Your task to perform on an android device: Open settings on Google Maps Image 0: 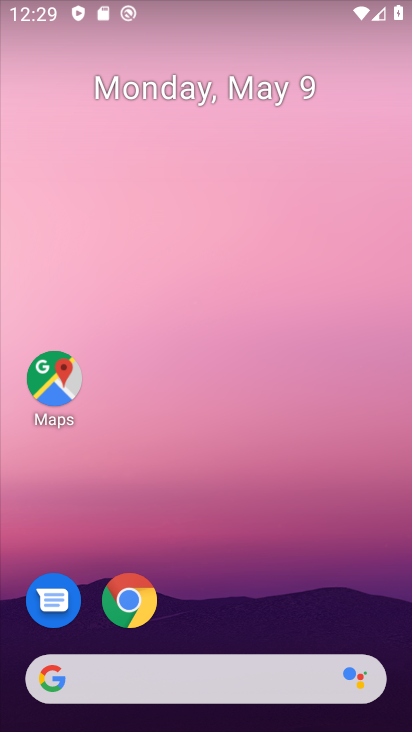
Step 0: click (59, 397)
Your task to perform on an android device: Open settings on Google Maps Image 1: 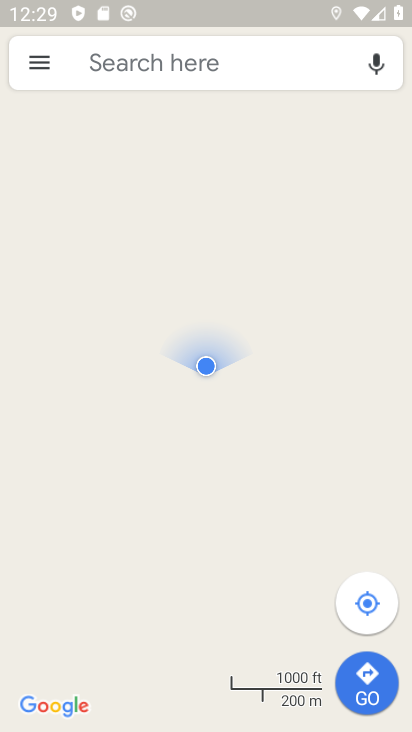
Step 1: click (36, 64)
Your task to perform on an android device: Open settings on Google Maps Image 2: 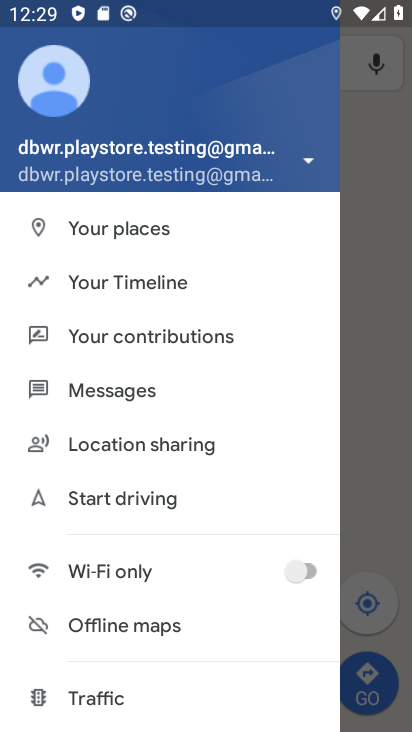
Step 2: drag from (135, 687) to (145, 373)
Your task to perform on an android device: Open settings on Google Maps Image 3: 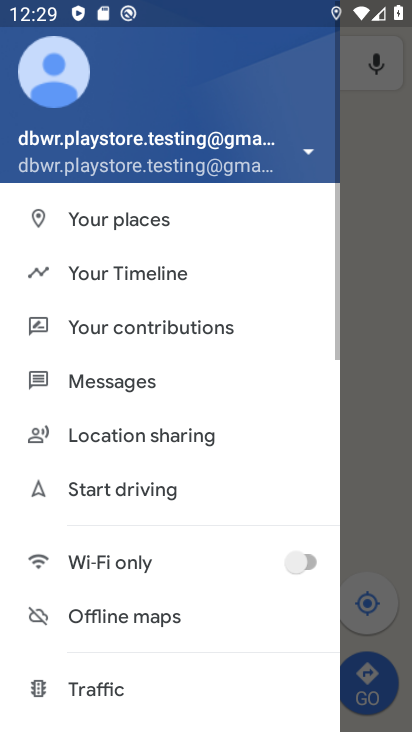
Step 3: drag from (165, 673) to (198, 254)
Your task to perform on an android device: Open settings on Google Maps Image 4: 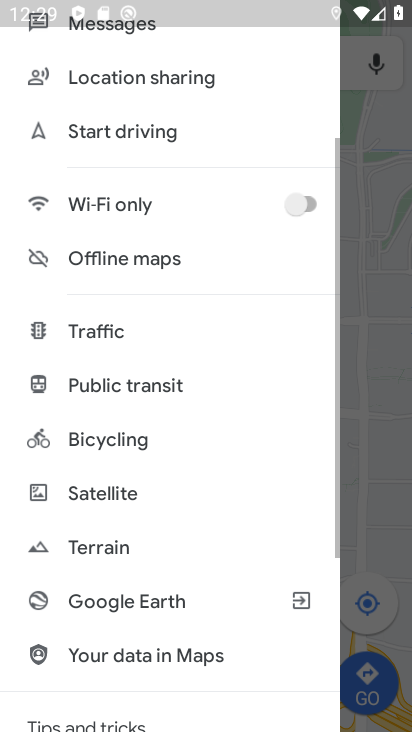
Step 4: drag from (199, 649) to (225, 81)
Your task to perform on an android device: Open settings on Google Maps Image 5: 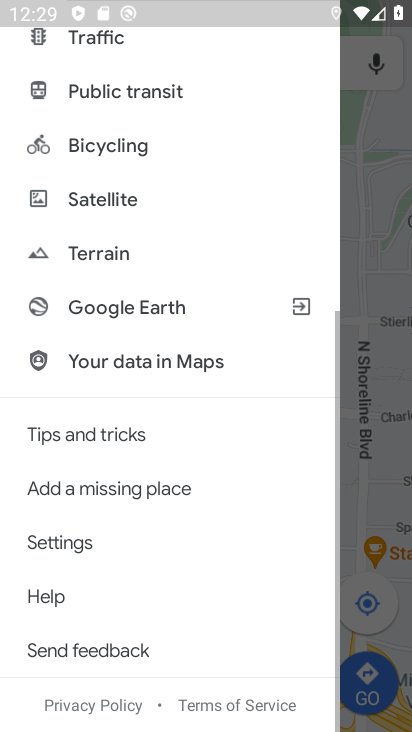
Step 5: drag from (111, 638) to (143, 435)
Your task to perform on an android device: Open settings on Google Maps Image 6: 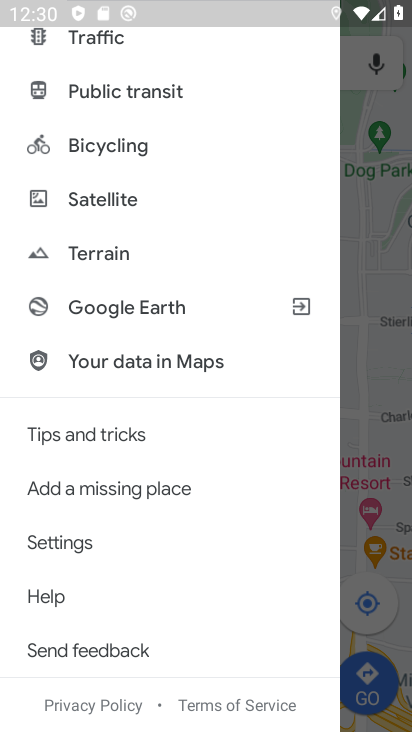
Step 6: click (143, 531)
Your task to perform on an android device: Open settings on Google Maps Image 7: 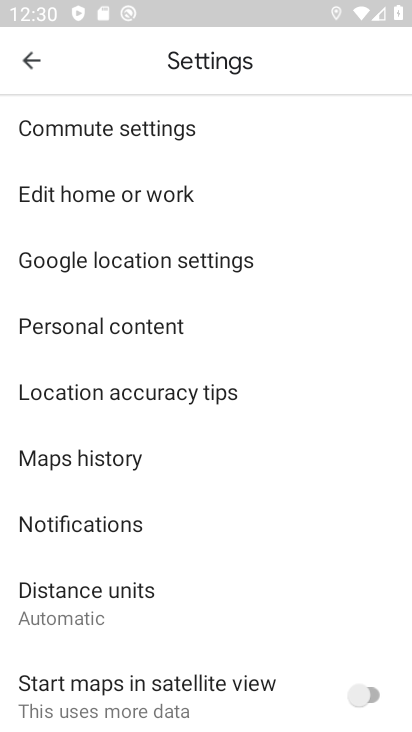
Step 7: task complete